Your task to perform on an android device: Is it going to rain this weekend? Image 0: 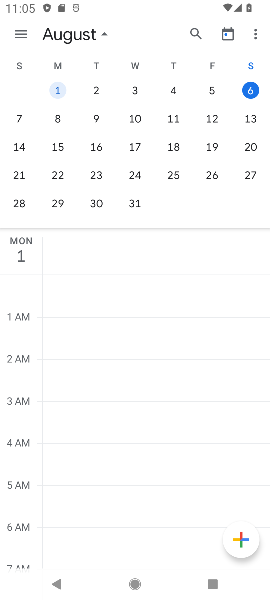
Step 0: press back button
Your task to perform on an android device: Is it going to rain this weekend? Image 1: 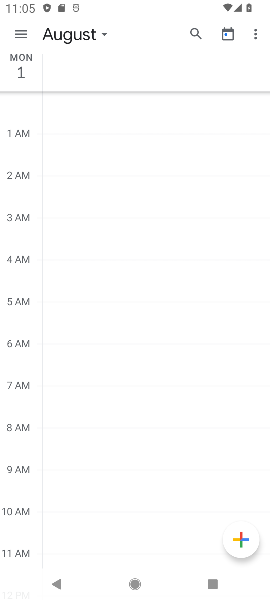
Step 1: click (107, 31)
Your task to perform on an android device: Is it going to rain this weekend? Image 2: 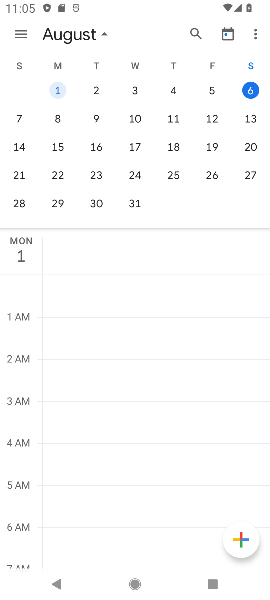
Step 2: press home button
Your task to perform on an android device: Is it going to rain this weekend? Image 3: 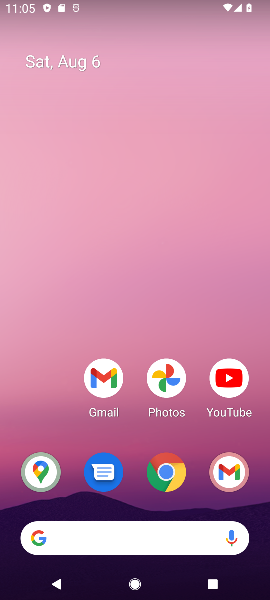
Step 3: drag from (132, 442) to (66, 73)
Your task to perform on an android device: Is it going to rain this weekend? Image 4: 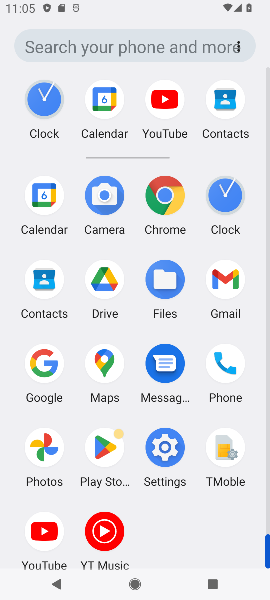
Step 4: click (166, 190)
Your task to perform on an android device: Is it going to rain this weekend? Image 5: 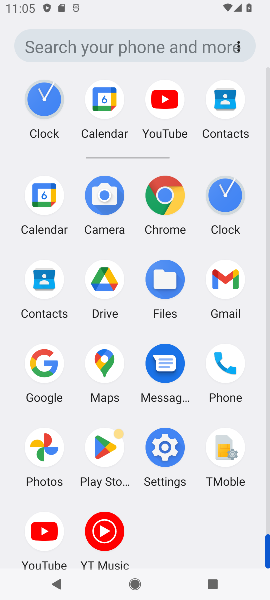
Step 5: click (167, 192)
Your task to perform on an android device: Is it going to rain this weekend? Image 6: 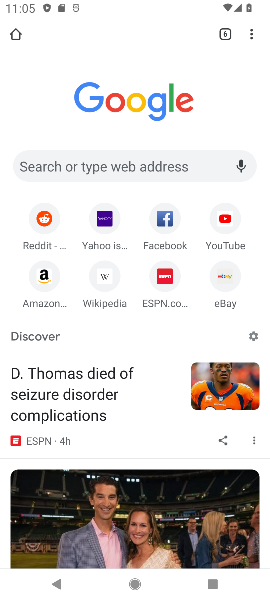
Step 6: click (76, 165)
Your task to perform on an android device: Is it going to rain this weekend? Image 7: 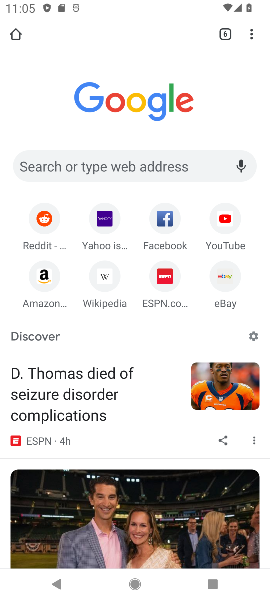
Step 7: click (76, 165)
Your task to perform on an android device: Is it going to rain this weekend? Image 8: 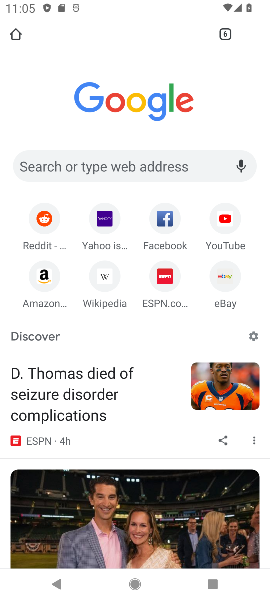
Step 8: click (76, 165)
Your task to perform on an android device: Is it going to rain this weekend? Image 9: 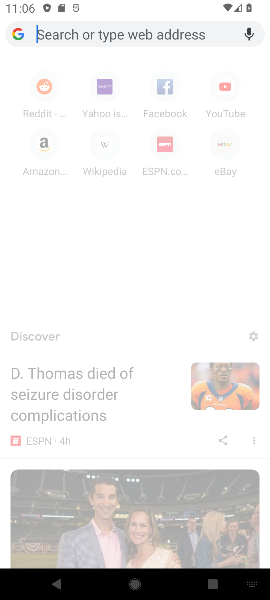
Step 9: type "is it going to rain this weekend"
Your task to perform on an android device: Is it going to rain this weekend? Image 10: 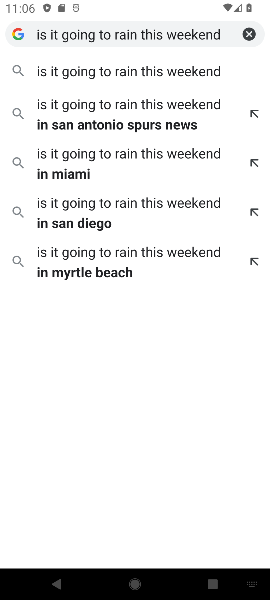
Step 10: click (133, 73)
Your task to perform on an android device: Is it going to rain this weekend? Image 11: 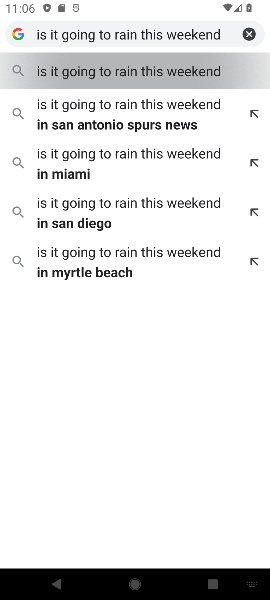
Step 11: click (133, 72)
Your task to perform on an android device: Is it going to rain this weekend? Image 12: 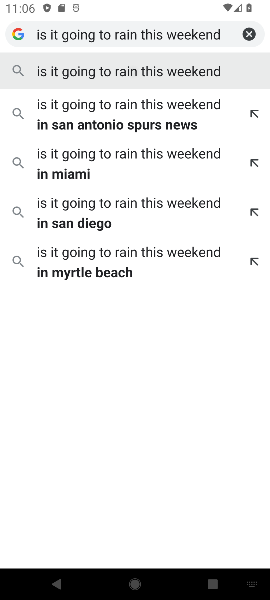
Step 12: click (135, 74)
Your task to perform on an android device: Is it going to rain this weekend? Image 13: 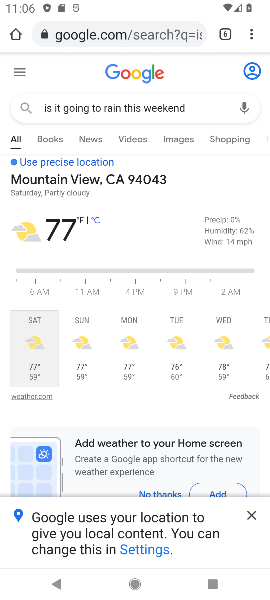
Step 13: task complete